Your task to perform on an android device: open sync settings in chrome Image 0: 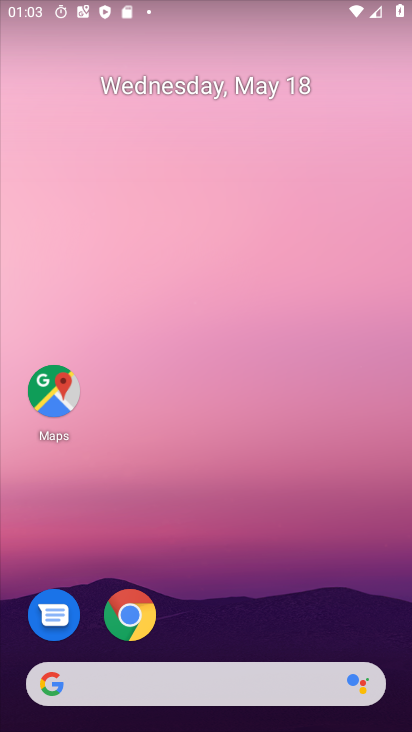
Step 0: click (128, 600)
Your task to perform on an android device: open sync settings in chrome Image 1: 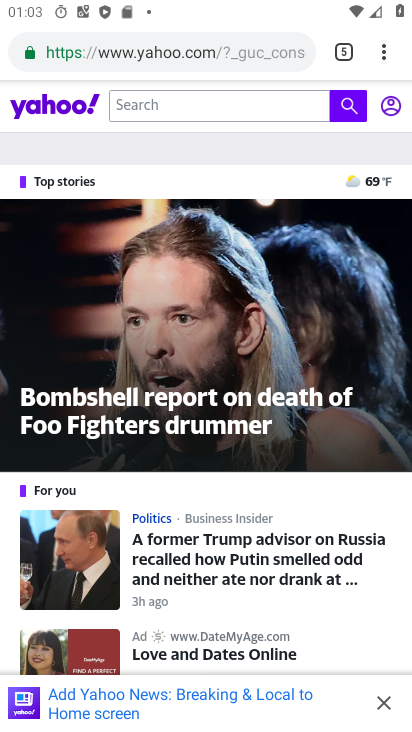
Step 1: click (375, 53)
Your task to perform on an android device: open sync settings in chrome Image 2: 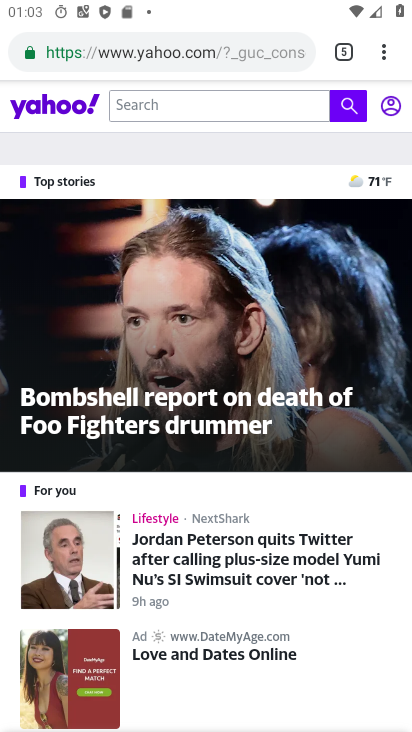
Step 2: click (379, 52)
Your task to perform on an android device: open sync settings in chrome Image 3: 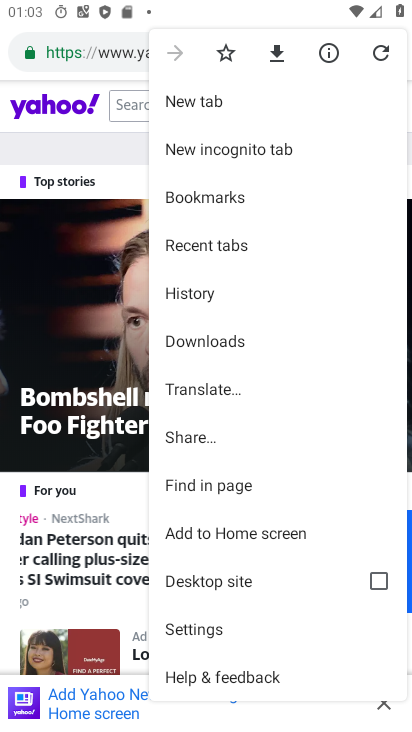
Step 3: click (193, 635)
Your task to perform on an android device: open sync settings in chrome Image 4: 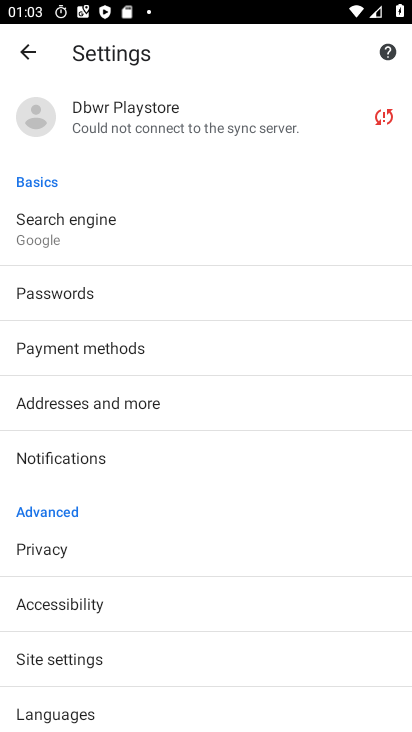
Step 4: click (146, 117)
Your task to perform on an android device: open sync settings in chrome Image 5: 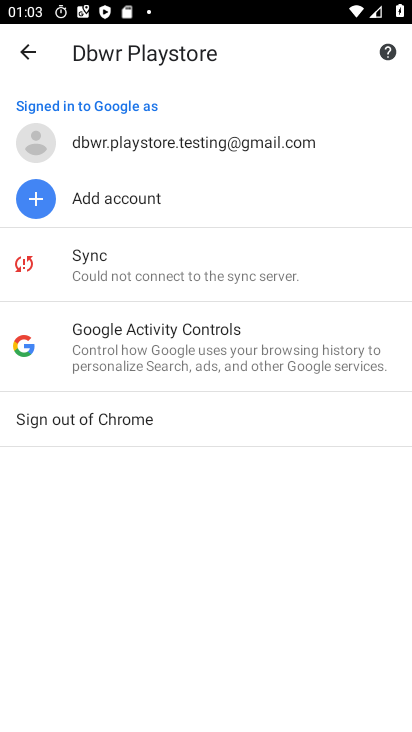
Step 5: click (164, 292)
Your task to perform on an android device: open sync settings in chrome Image 6: 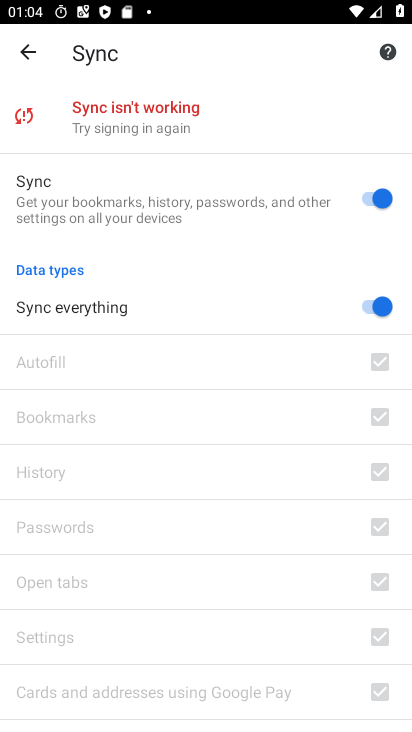
Step 6: task complete